Your task to perform on an android device: Open Android settings Image 0: 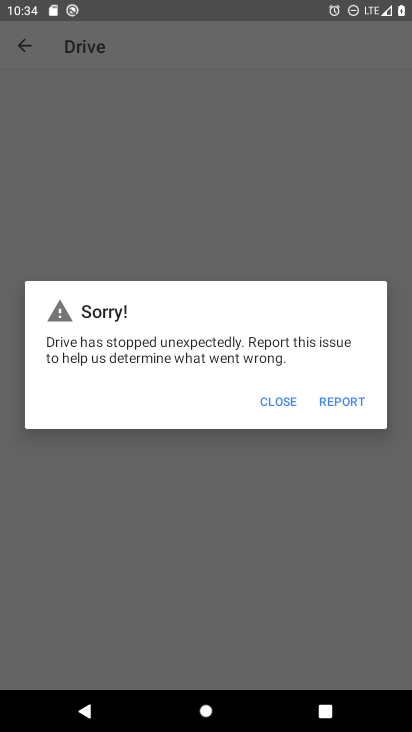
Step 0: press home button
Your task to perform on an android device: Open Android settings Image 1: 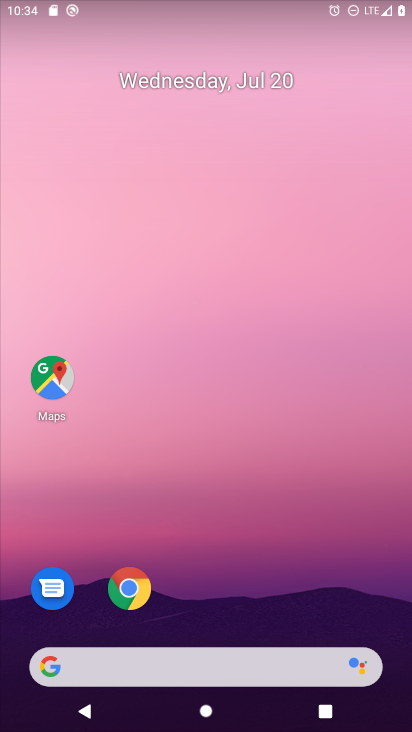
Step 1: drag from (187, 608) to (159, 138)
Your task to perform on an android device: Open Android settings Image 2: 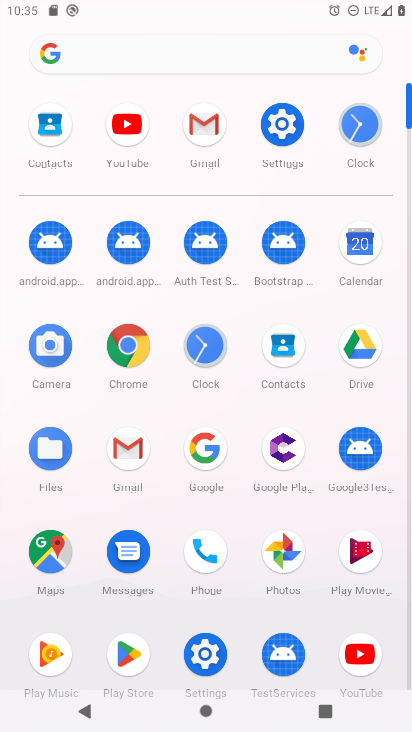
Step 2: click (284, 129)
Your task to perform on an android device: Open Android settings Image 3: 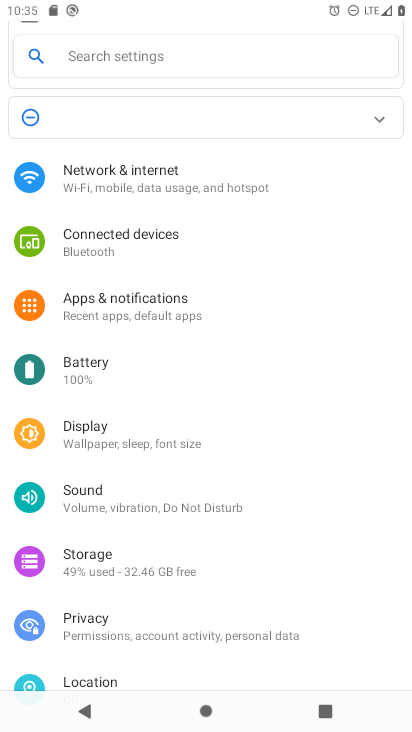
Step 3: task complete